Your task to perform on an android device: turn on airplane mode Image 0: 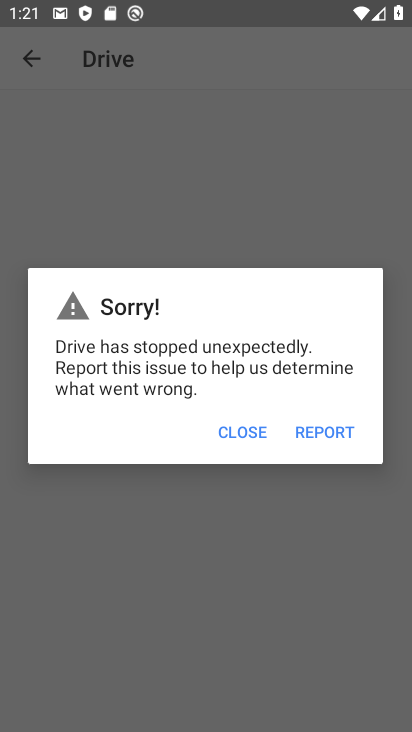
Step 0: press home button
Your task to perform on an android device: turn on airplane mode Image 1: 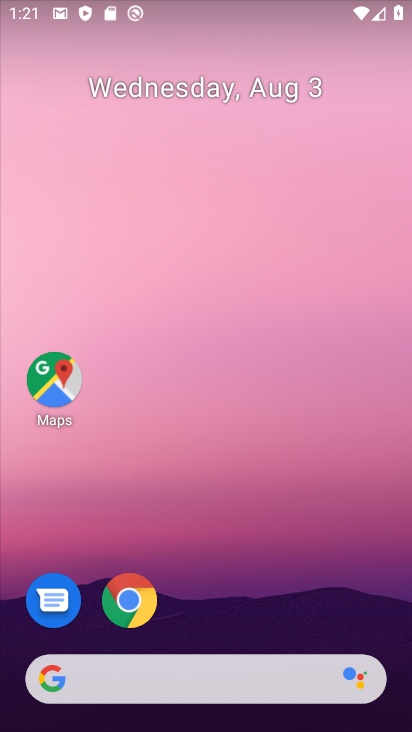
Step 1: drag from (277, 579) to (248, 112)
Your task to perform on an android device: turn on airplane mode Image 2: 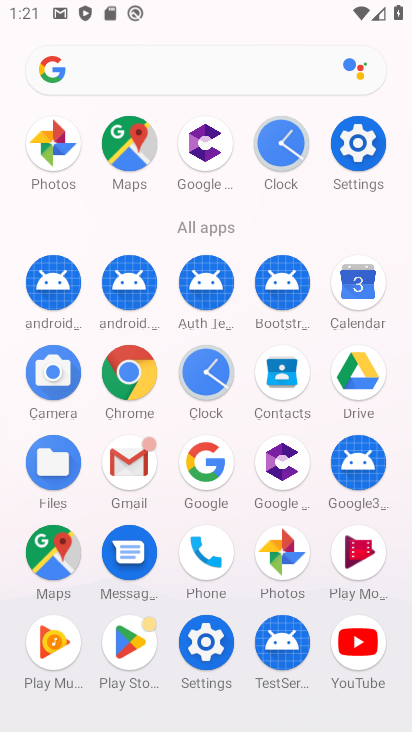
Step 2: click (366, 135)
Your task to perform on an android device: turn on airplane mode Image 3: 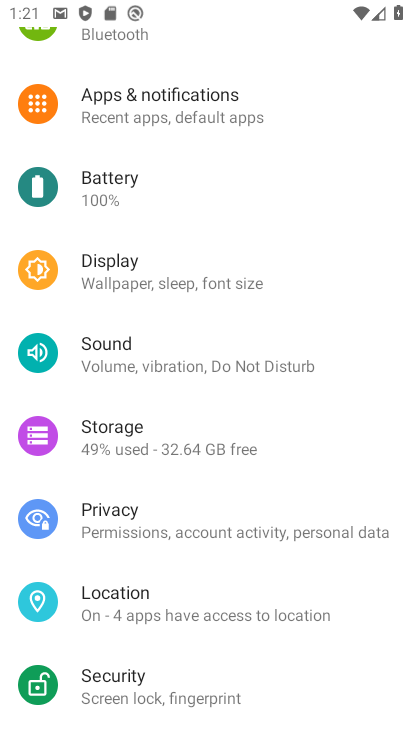
Step 3: drag from (195, 119) to (216, 404)
Your task to perform on an android device: turn on airplane mode Image 4: 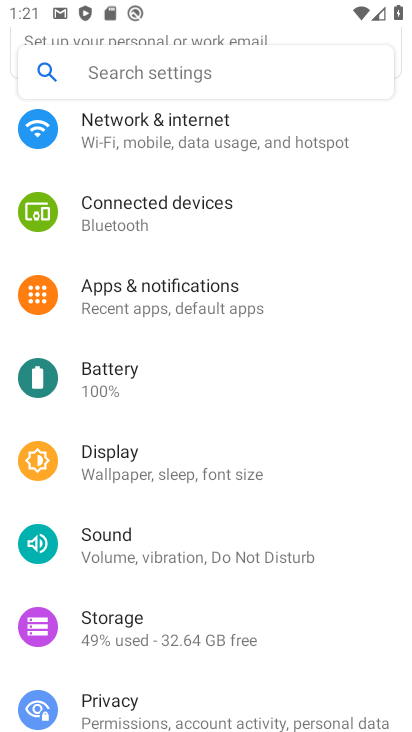
Step 4: click (206, 133)
Your task to perform on an android device: turn on airplane mode Image 5: 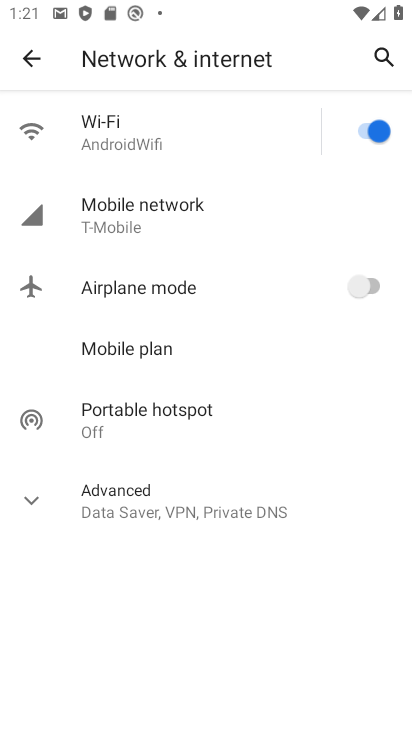
Step 5: click (365, 283)
Your task to perform on an android device: turn on airplane mode Image 6: 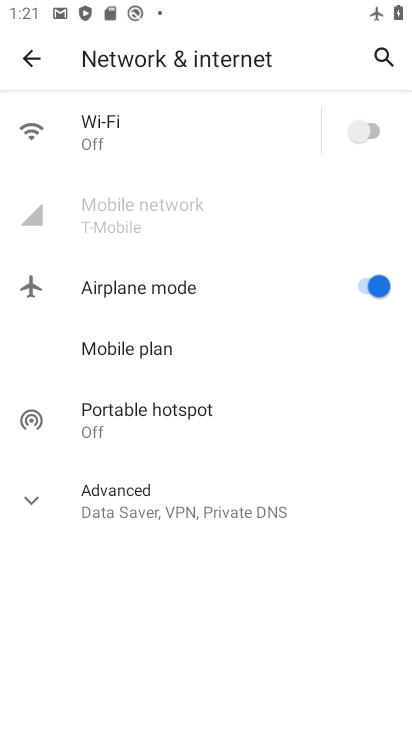
Step 6: task complete